Your task to perform on an android device: turn off notifications settings in the gmail app Image 0: 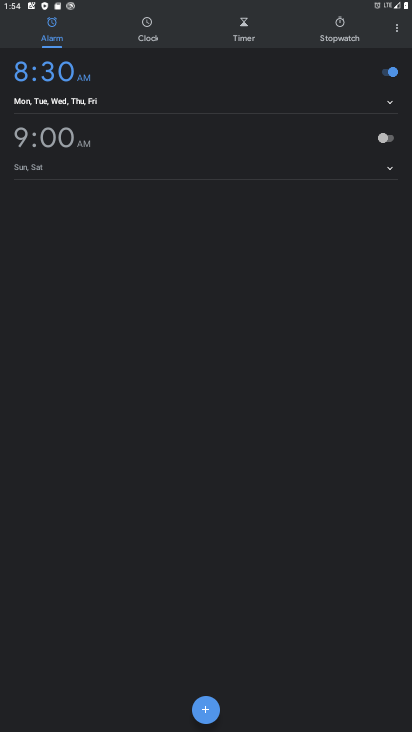
Step 0: press home button
Your task to perform on an android device: turn off notifications settings in the gmail app Image 1: 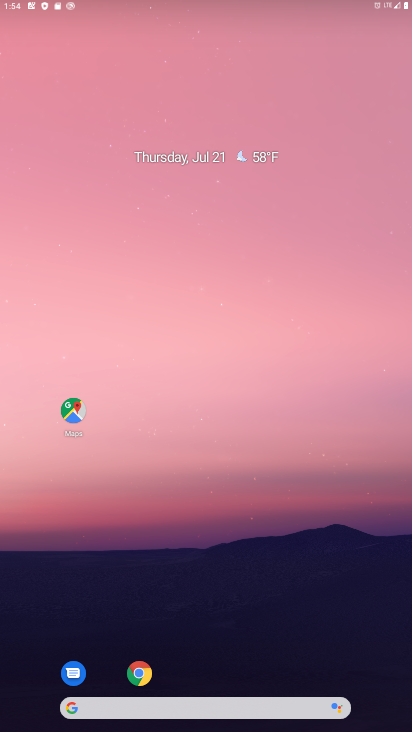
Step 1: drag from (245, 674) to (245, 245)
Your task to perform on an android device: turn off notifications settings in the gmail app Image 2: 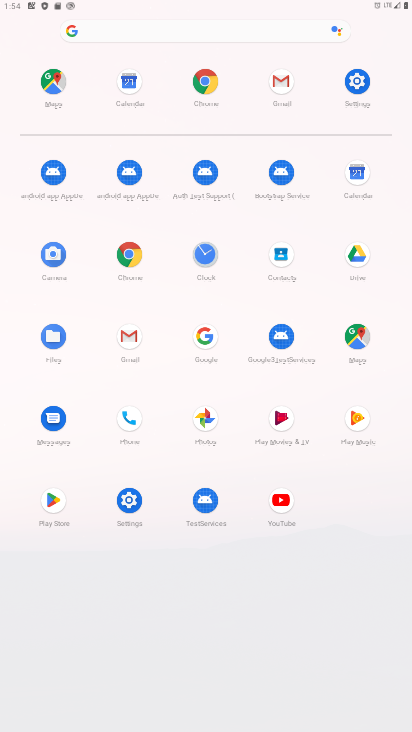
Step 2: click (131, 334)
Your task to perform on an android device: turn off notifications settings in the gmail app Image 3: 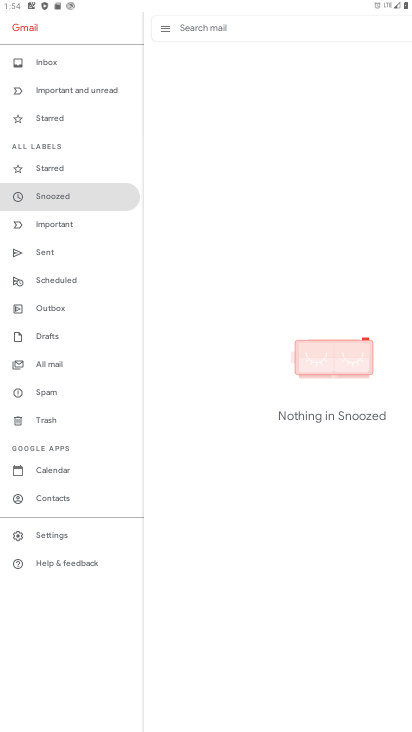
Step 3: click (64, 528)
Your task to perform on an android device: turn off notifications settings in the gmail app Image 4: 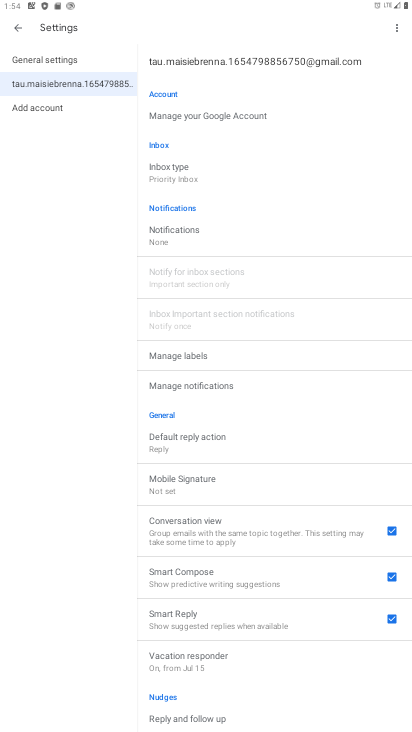
Step 4: drag from (199, 170) to (98, 315)
Your task to perform on an android device: turn off notifications settings in the gmail app Image 5: 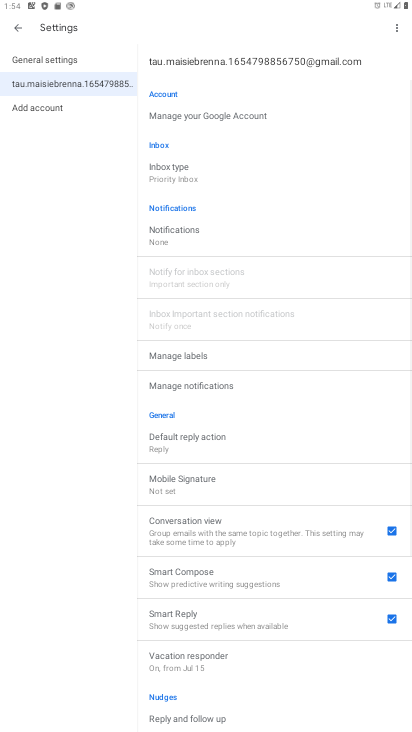
Step 5: click (175, 235)
Your task to perform on an android device: turn off notifications settings in the gmail app Image 6: 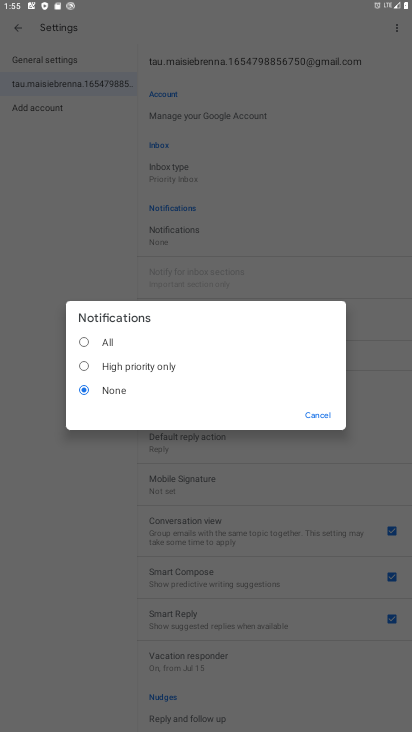
Step 6: task complete